Your task to perform on an android device: Go to sound settings Image 0: 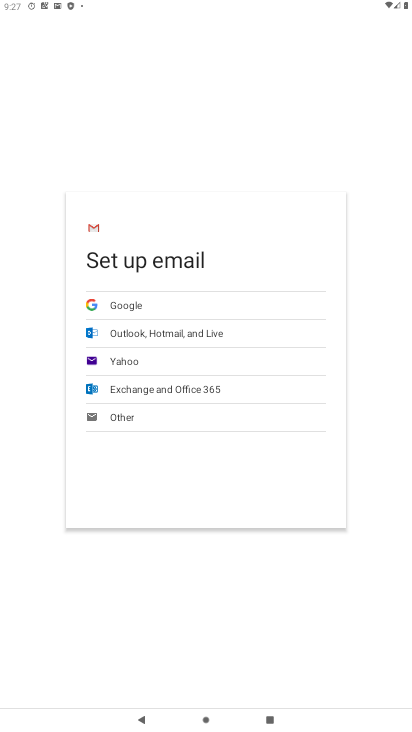
Step 0: drag from (186, 656) to (252, 277)
Your task to perform on an android device: Go to sound settings Image 1: 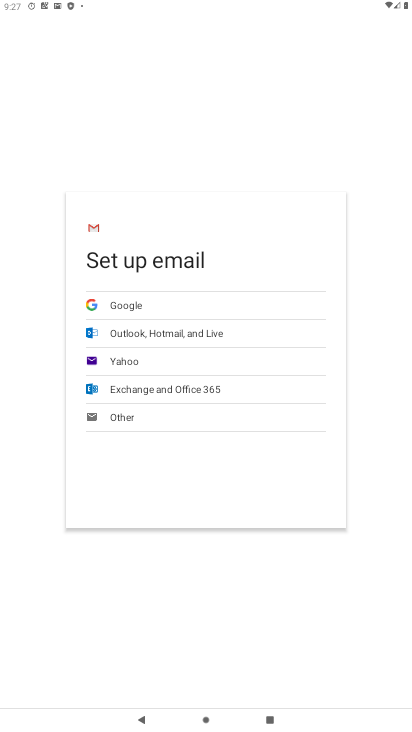
Step 1: press home button
Your task to perform on an android device: Go to sound settings Image 2: 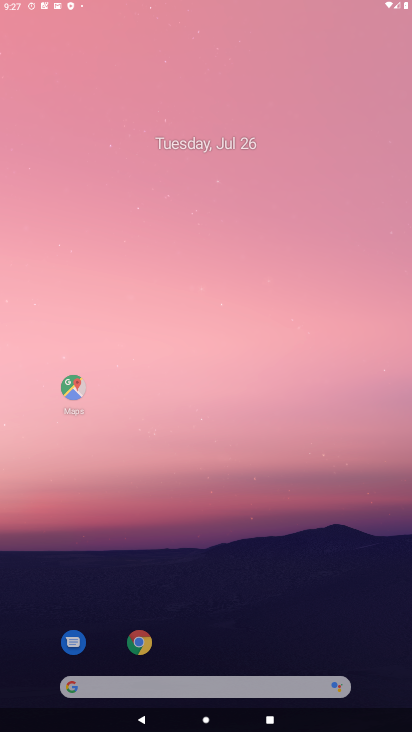
Step 2: drag from (184, 642) to (186, 431)
Your task to perform on an android device: Go to sound settings Image 3: 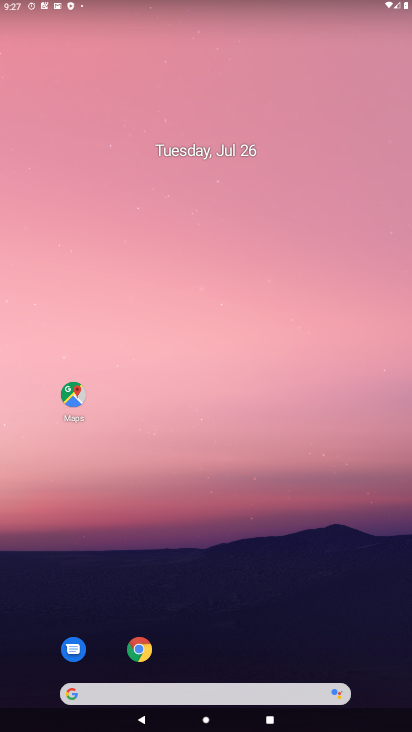
Step 3: drag from (188, 601) to (284, 151)
Your task to perform on an android device: Go to sound settings Image 4: 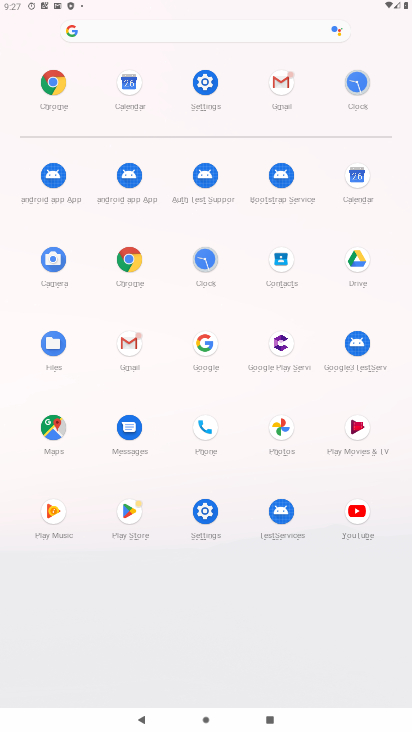
Step 4: click (208, 84)
Your task to perform on an android device: Go to sound settings Image 5: 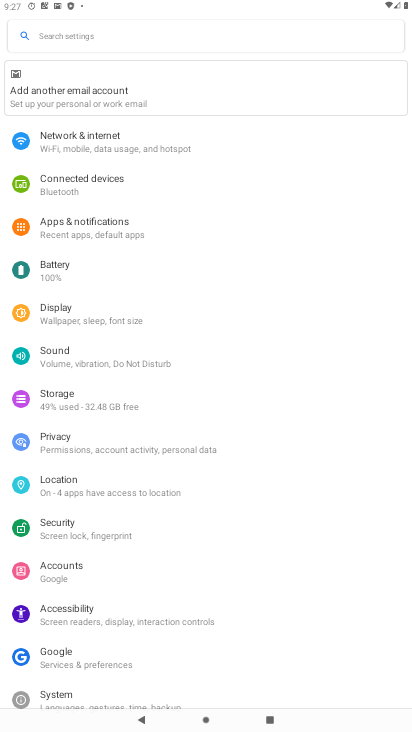
Step 5: click (102, 358)
Your task to perform on an android device: Go to sound settings Image 6: 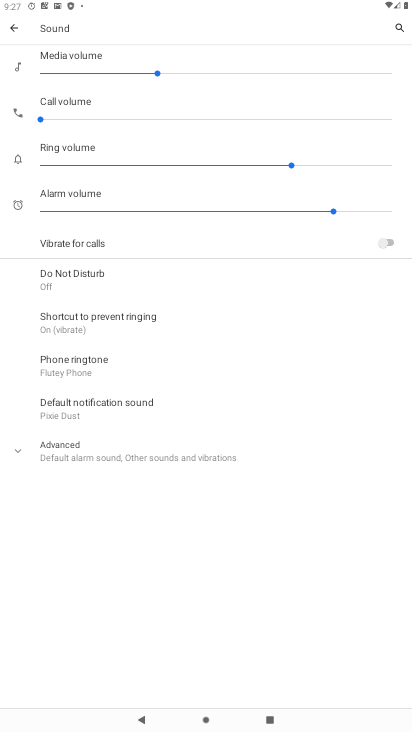
Step 6: task complete